Your task to perform on an android device: Open Chrome and go to settings Image 0: 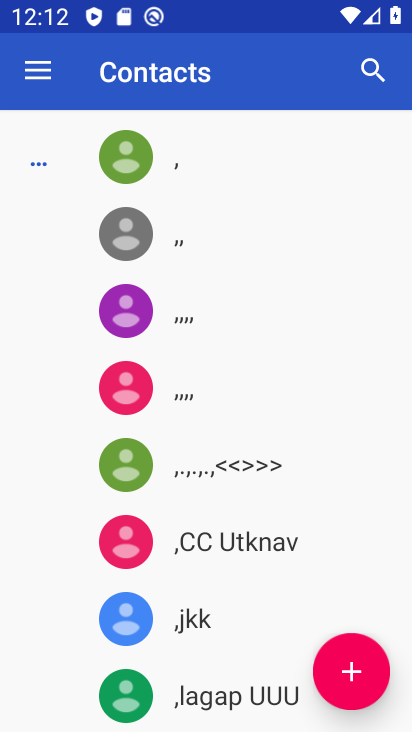
Step 0: press home button
Your task to perform on an android device: Open Chrome and go to settings Image 1: 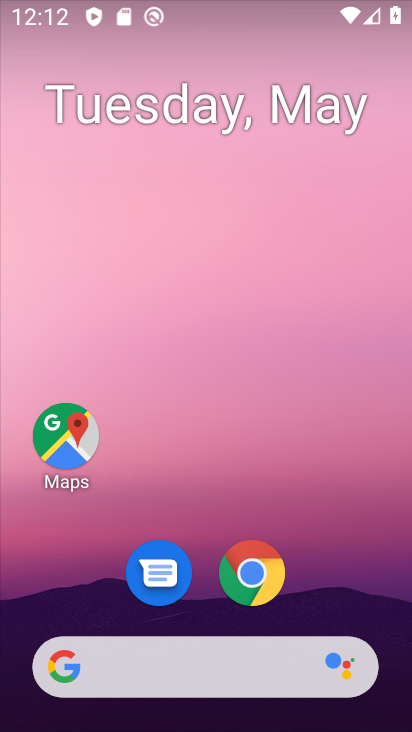
Step 1: drag from (358, 536) to (359, 16)
Your task to perform on an android device: Open Chrome and go to settings Image 2: 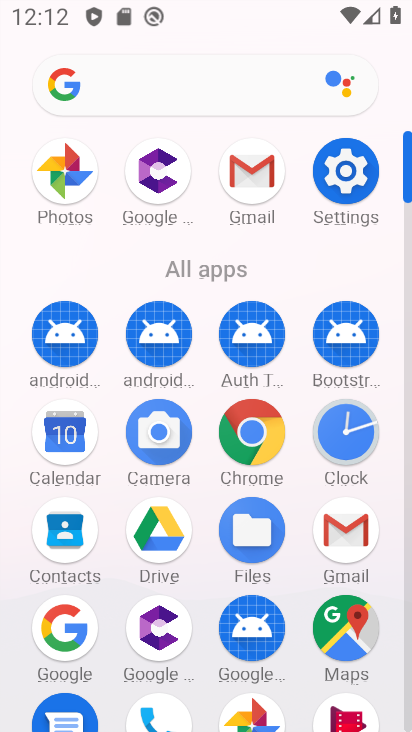
Step 2: click (242, 447)
Your task to perform on an android device: Open Chrome and go to settings Image 3: 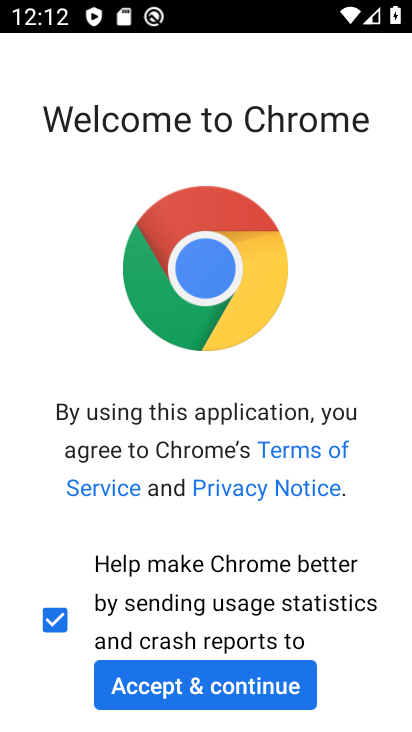
Step 3: click (225, 692)
Your task to perform on an android device: Open Chrome and go to settings Image 4: 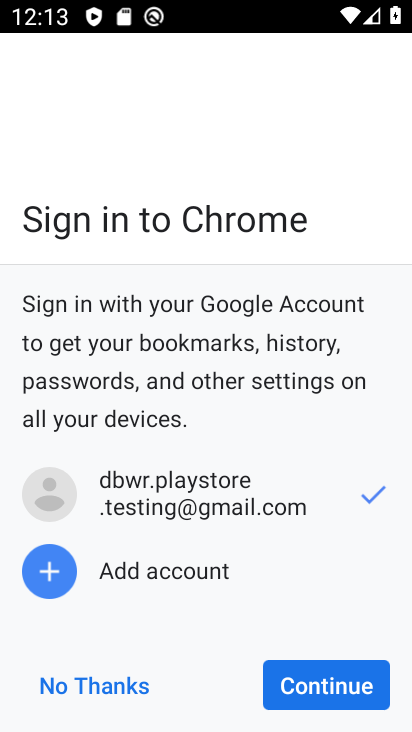
Step 4: click (114, 688)
Your task to perform on an android device: Open Chrome and go to settings Image 5: 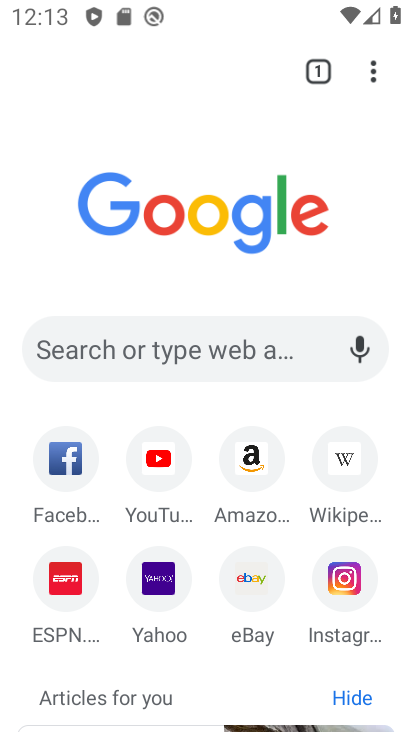
Step 5: task complete